Your task to perform on an android device: Open Yahoo.com Image 0: 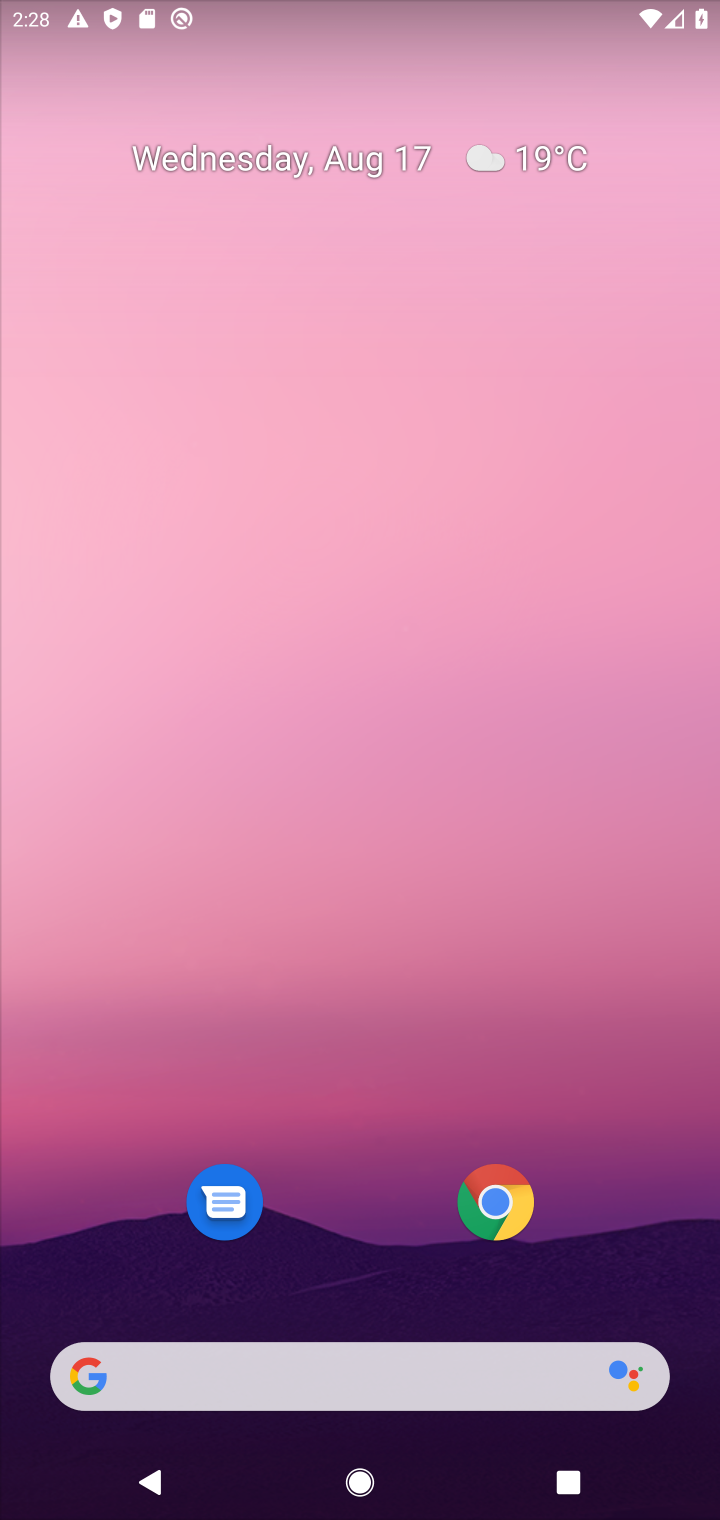
Step 0: press home button
Your task to perform on an android device: Open Yahoo.com Image 1: 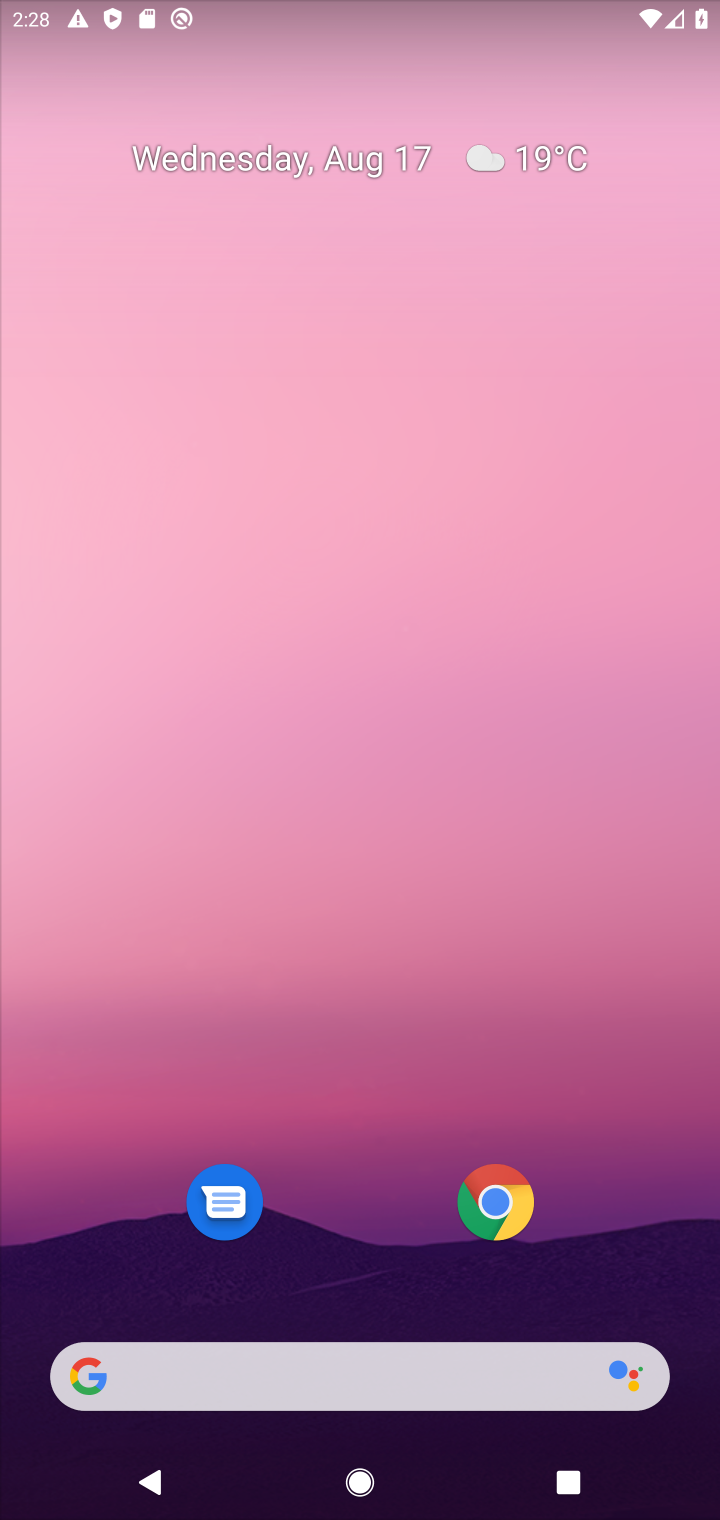
Step 1: click (514, 1212)
Your task to perform on an android device: Open Yahoo.com Image 2: 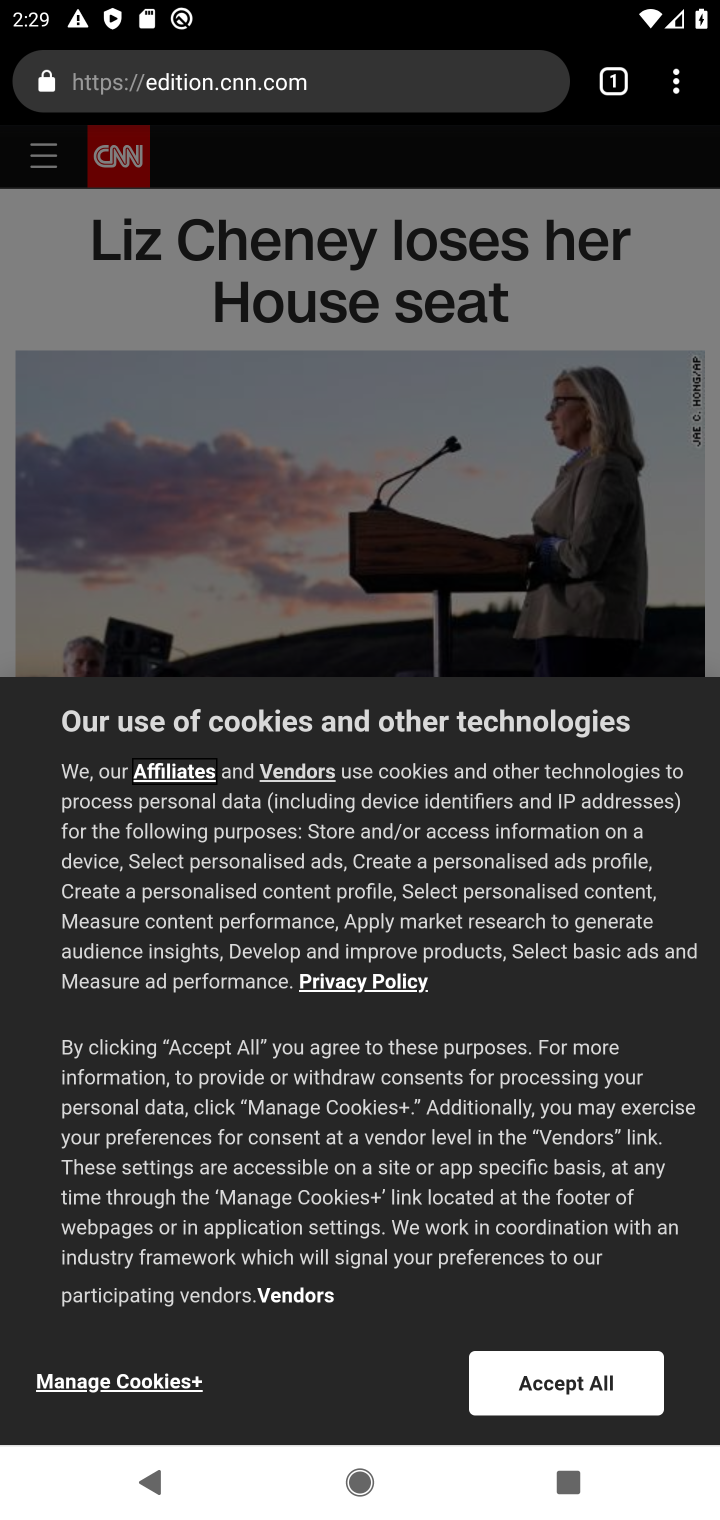
Step 2: click (263, 73)
Your task to perform on an android device: Open Yahoo.com Image 3: 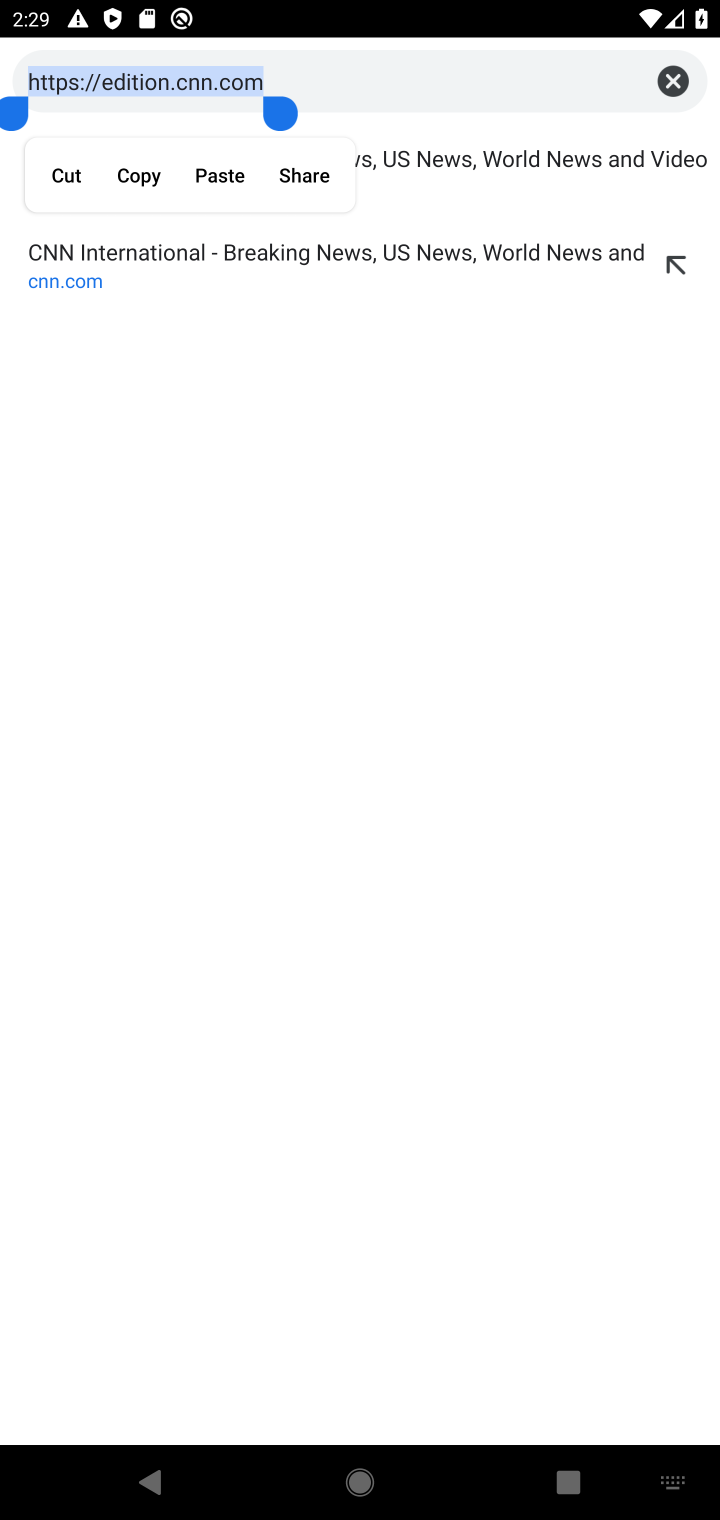
Step 3: type "yahoo.com"
Your task to perform on an android device: Open Yahoo.com Image 4: 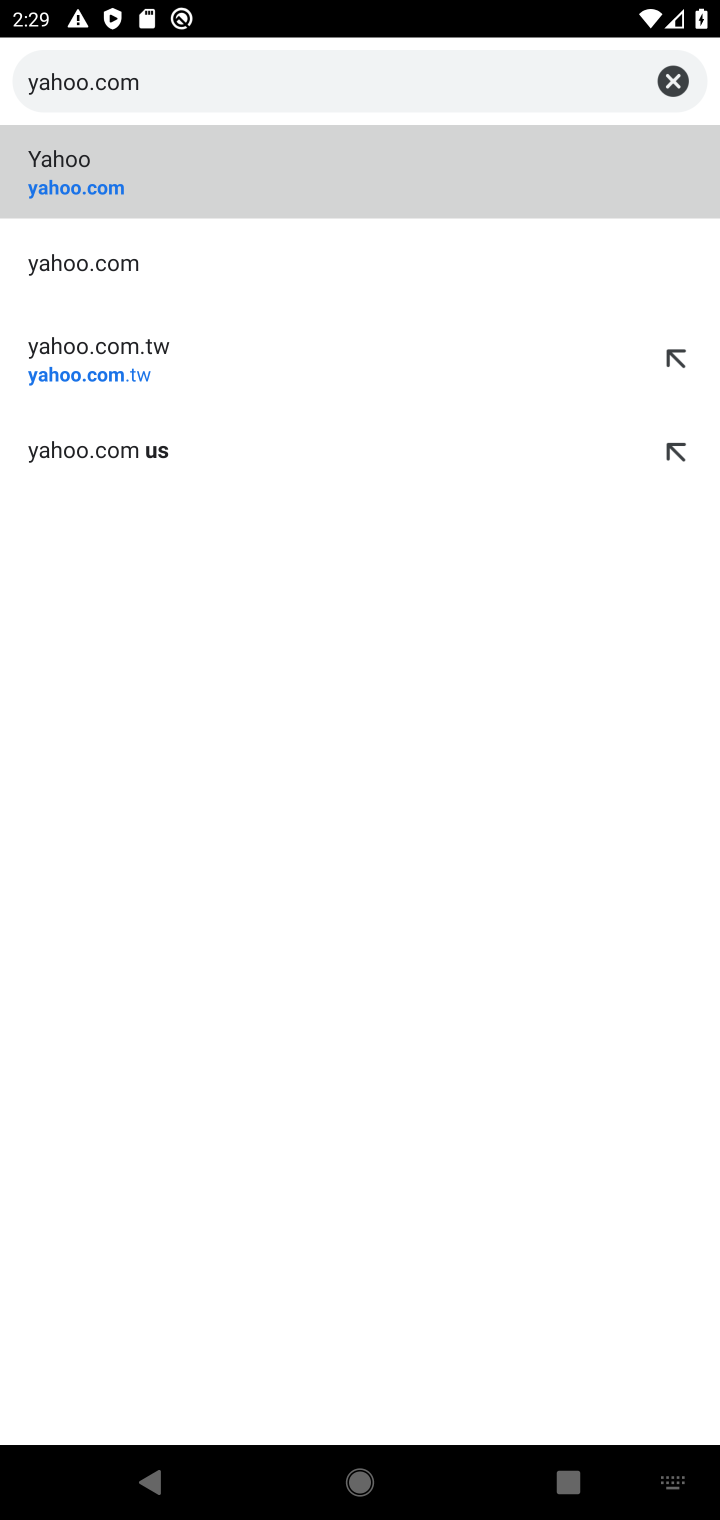
Step 4: click (106, 263)
Your task to perform on an android device: Open Yahoo.com Image 5: 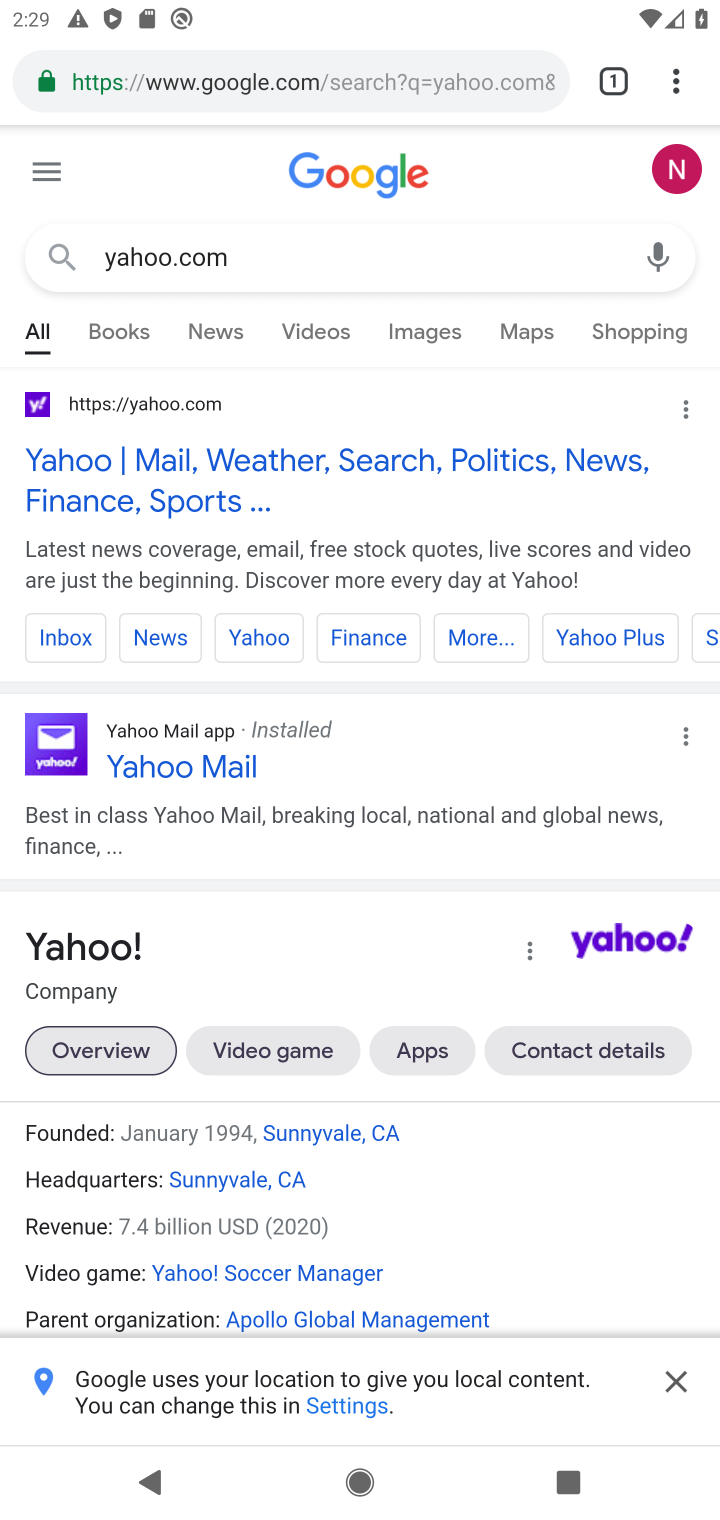
Step 5: task complete